Your task to perform on an android device: Open Youtube and go to the subscriptions tab Image 0: 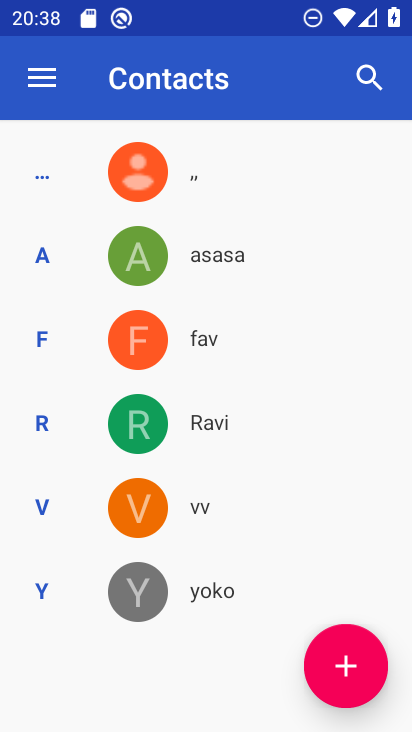
Step 0: press home button
Your task to perform on an android device: Open Youtube and go to the subscriptions tab Image 1: 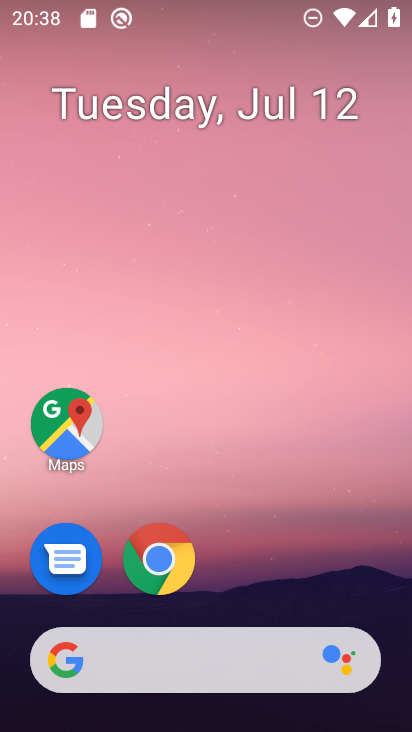
Step 1: drag from (359, 569) to (358, 122)
Your task to perform on an android device: Open Youtube and go to the subscriptions tab Image 2: 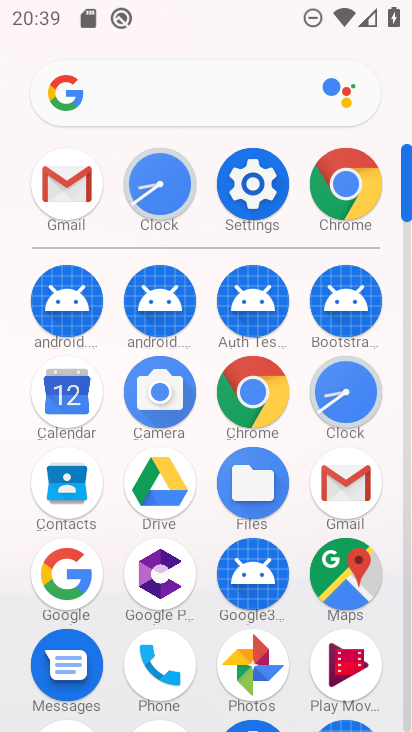
Step 2: drag from (385, 542) to (395, 280)
Your task to perform on an android device: Open Youtube and go to the subscriptions tab Image 3: 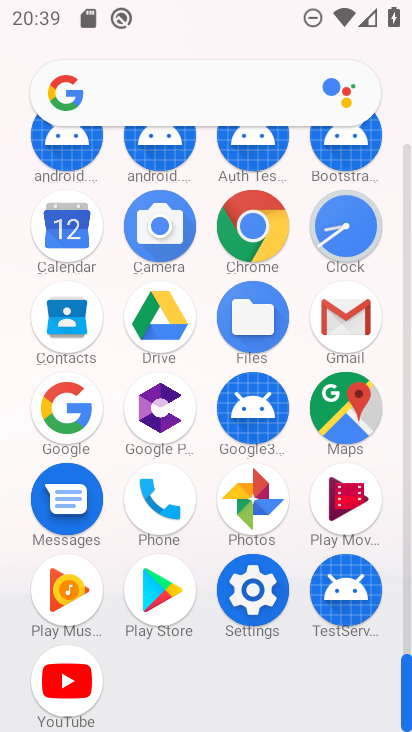
Step 3: click (71, 685)
Your task to perform on an android device: Open Youtube and go to the subscriptions tab Image 4: 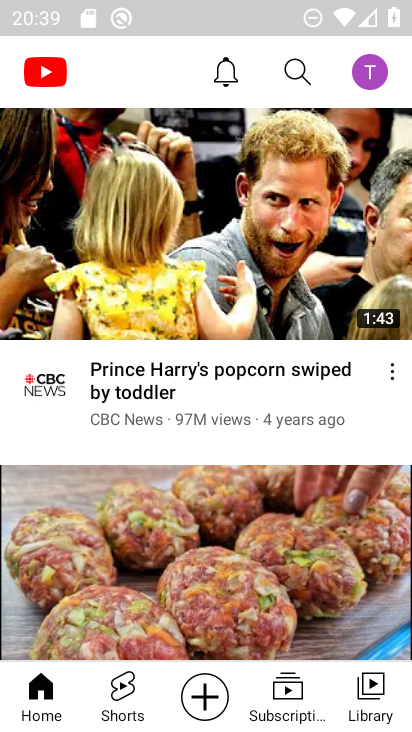
Step 4: click (291, 688)
Your task to perform on an android device: Open Youtube and go to the subscriptions tab Image 5: 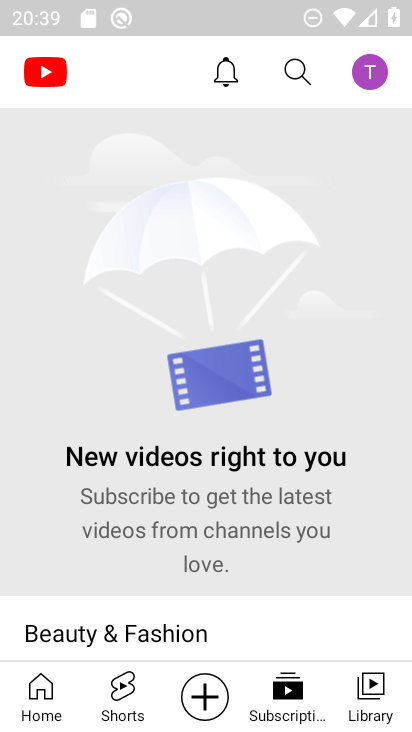
Step 5: task complete